Your task to perform on an android device: set the timer Image 0: 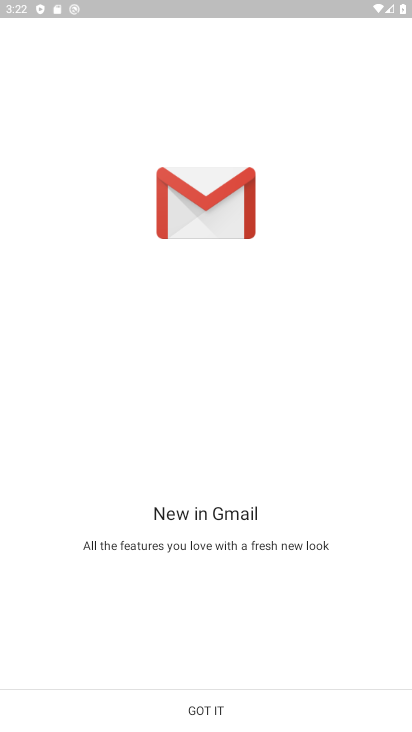
Step 0: press home button
Your task to perform on an android device: set the timer Image 1: 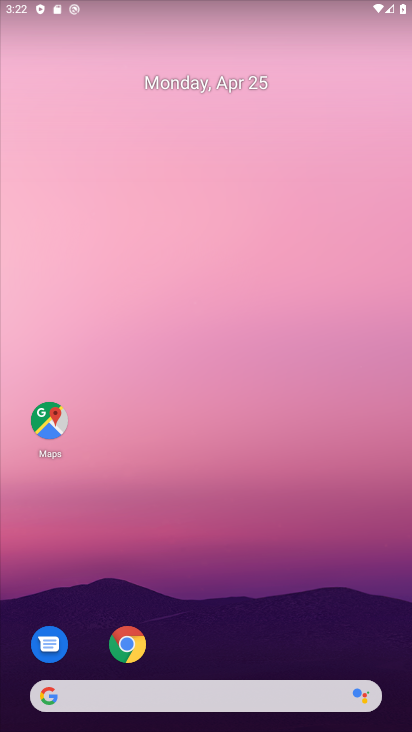
Step 1: drag from (209, 647) to (279, 103)
Your task to perform on an android device: set the timer Image 2: 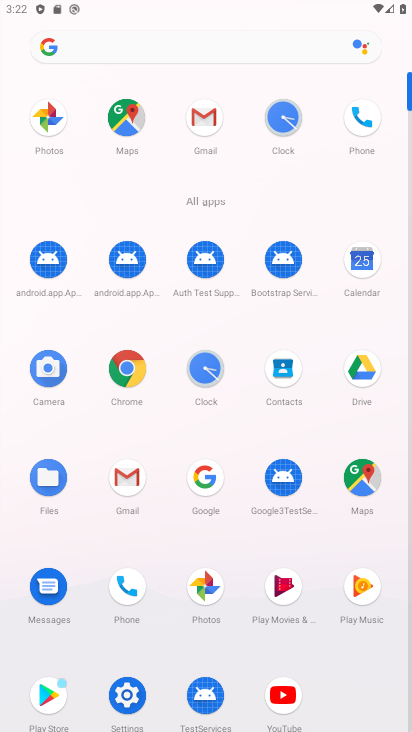
Step 2: click (204, 367)
Your task to perform on an android device: set the timer Image 3: 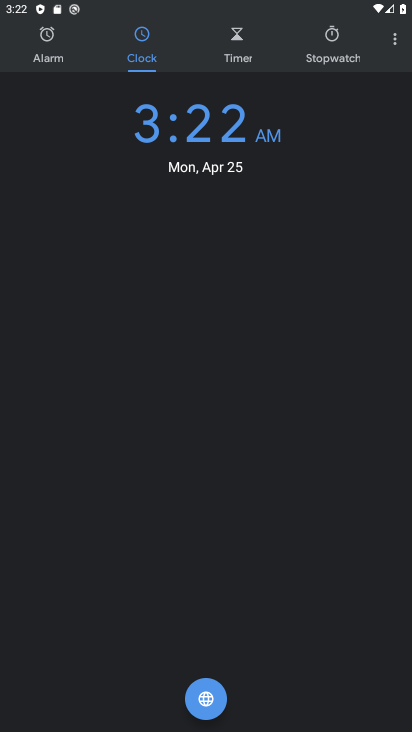
Step 3: click (230, 36)
Your task to perform on an android device: set the timer Image 4: 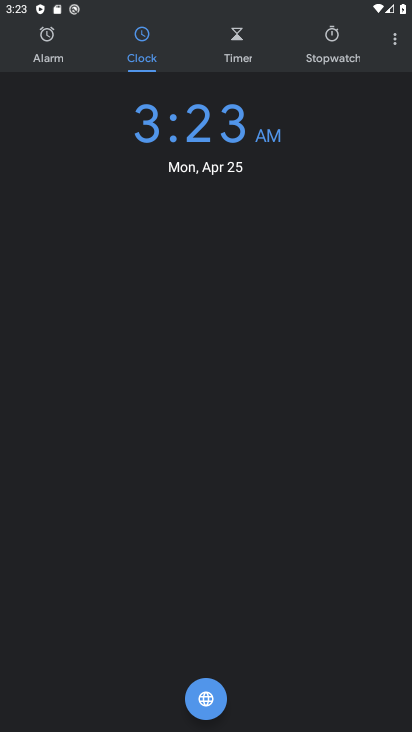
Step 4: click (236, 49)
Your task to perform on an android device: set the timer Image 5: 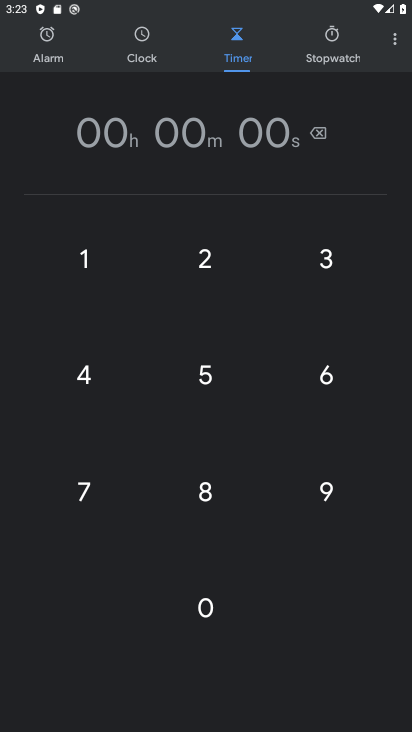
Step 5: click (209, 259)
Your task to perform on an android device: set the timer Image 6: 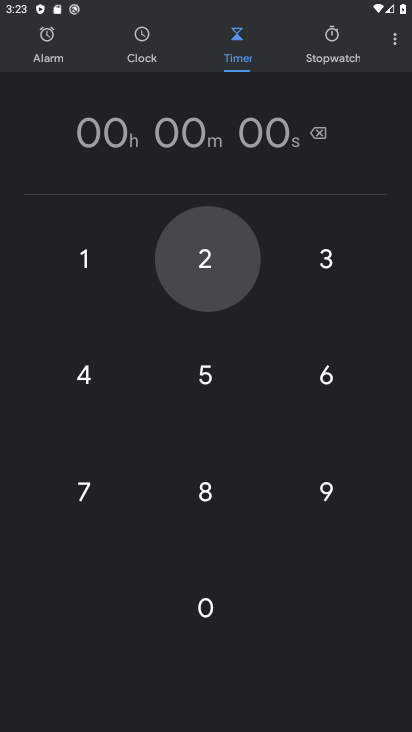
Step 6: click (199, 591)
Your task to perform on an android device: set the timer Image 7: 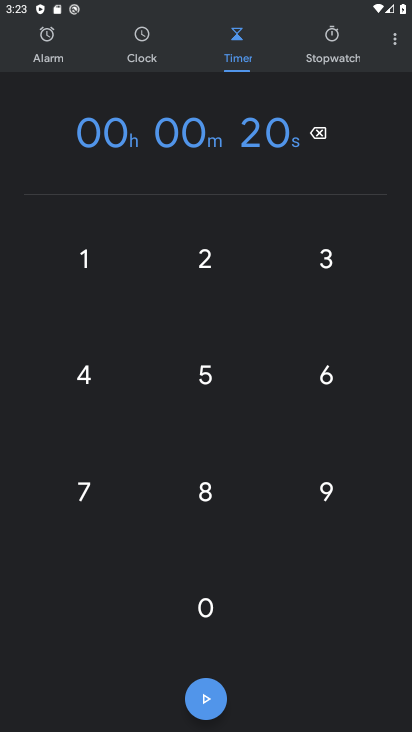
Step 7: click (205, 592)
Your task to perform on an android device: set the timer Image 8: 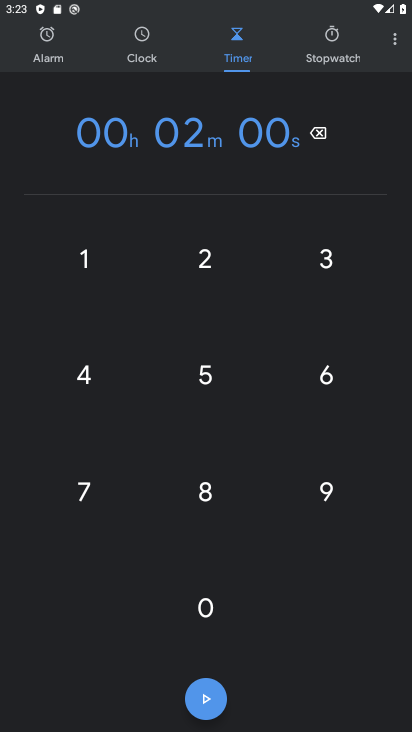
Step 8: click (205, 593)
Your task to perform on an android device: set the timer Image 9: 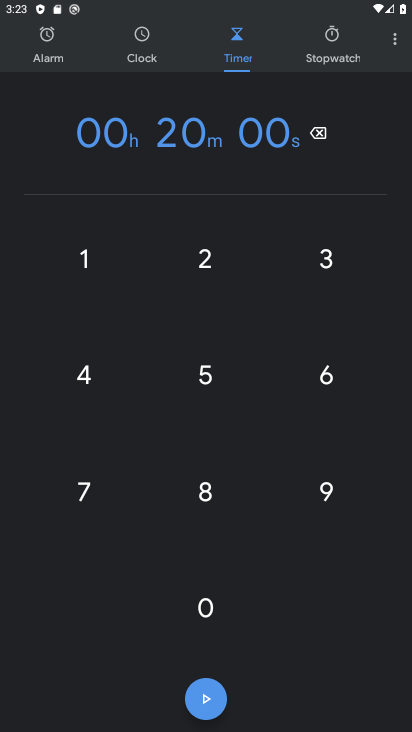
Step 9: click (205, 696)
Your task to perform on an android device: set the timer Image 10: 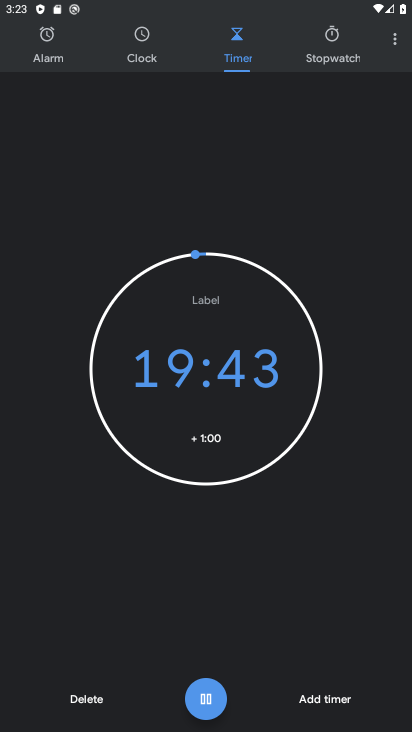
Step 10: task complete